Your task to perform on an android device: open app "Flipkart Online Shopping App" (install if not already installed) and go to login screen Image 0: 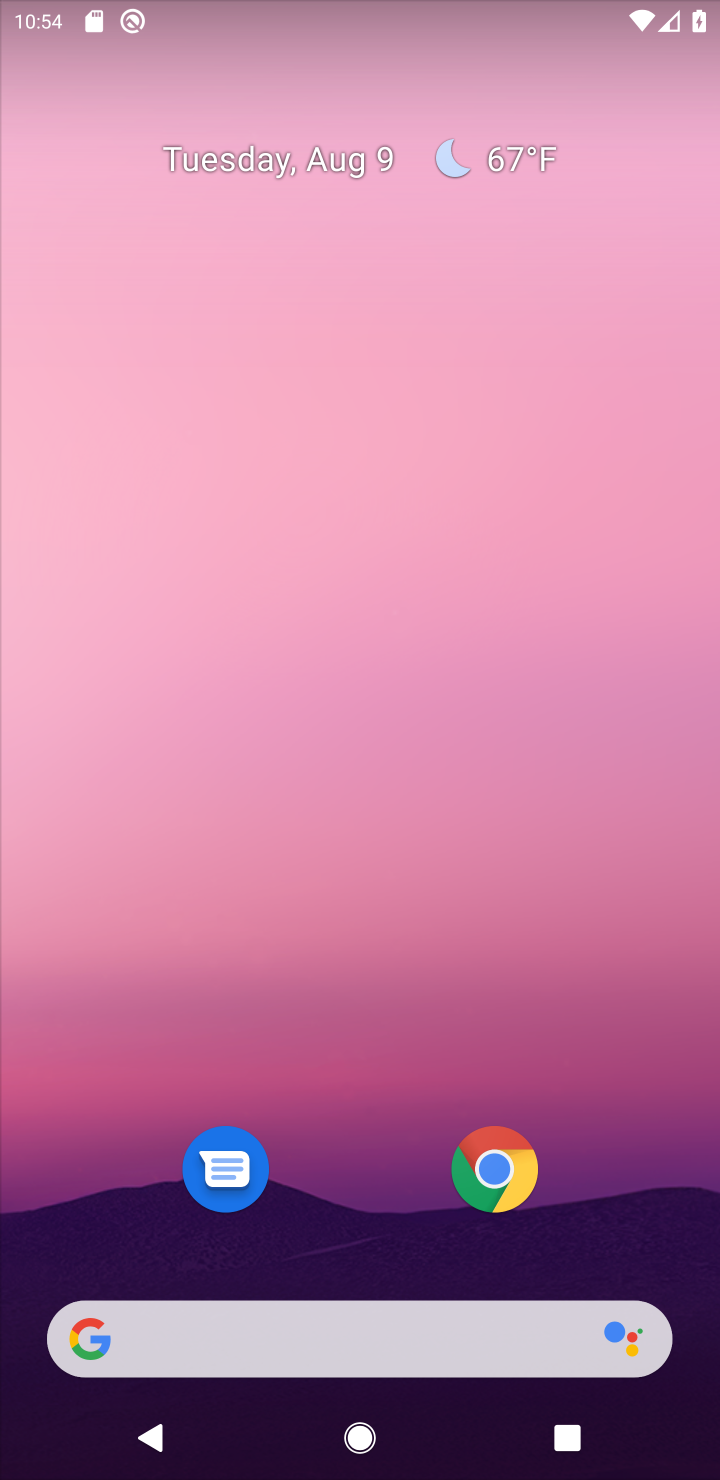
Step 0: drag from (640, 1236) to (668, 108)
Your task to perform on an android device: open app "Flipkart Online Shopping App" (install if not already installed) and go to login screen Image 1: 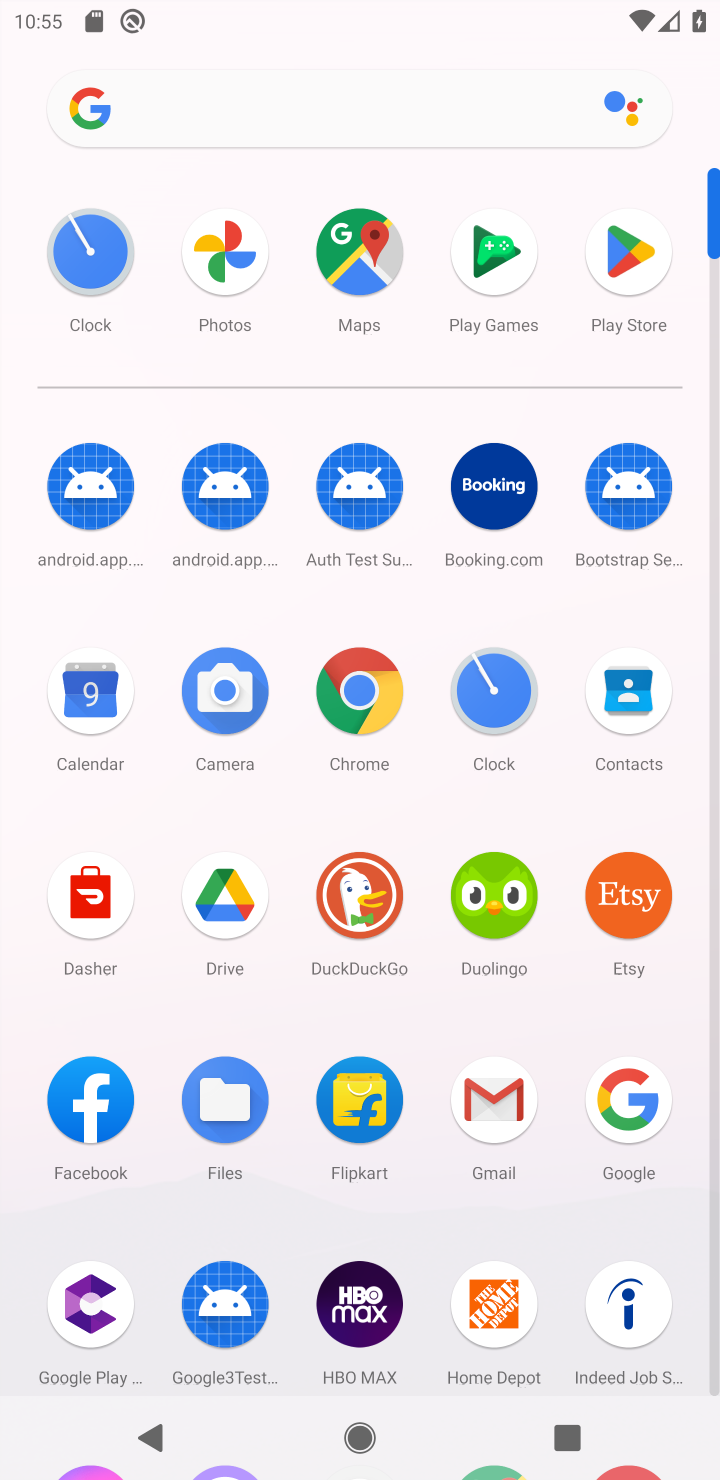
Step 1: click (621, 237)
Your task to perform on an android device: open app "Flipkart Online Shopping App" (install if not already installed) and go to login screen Image 2: 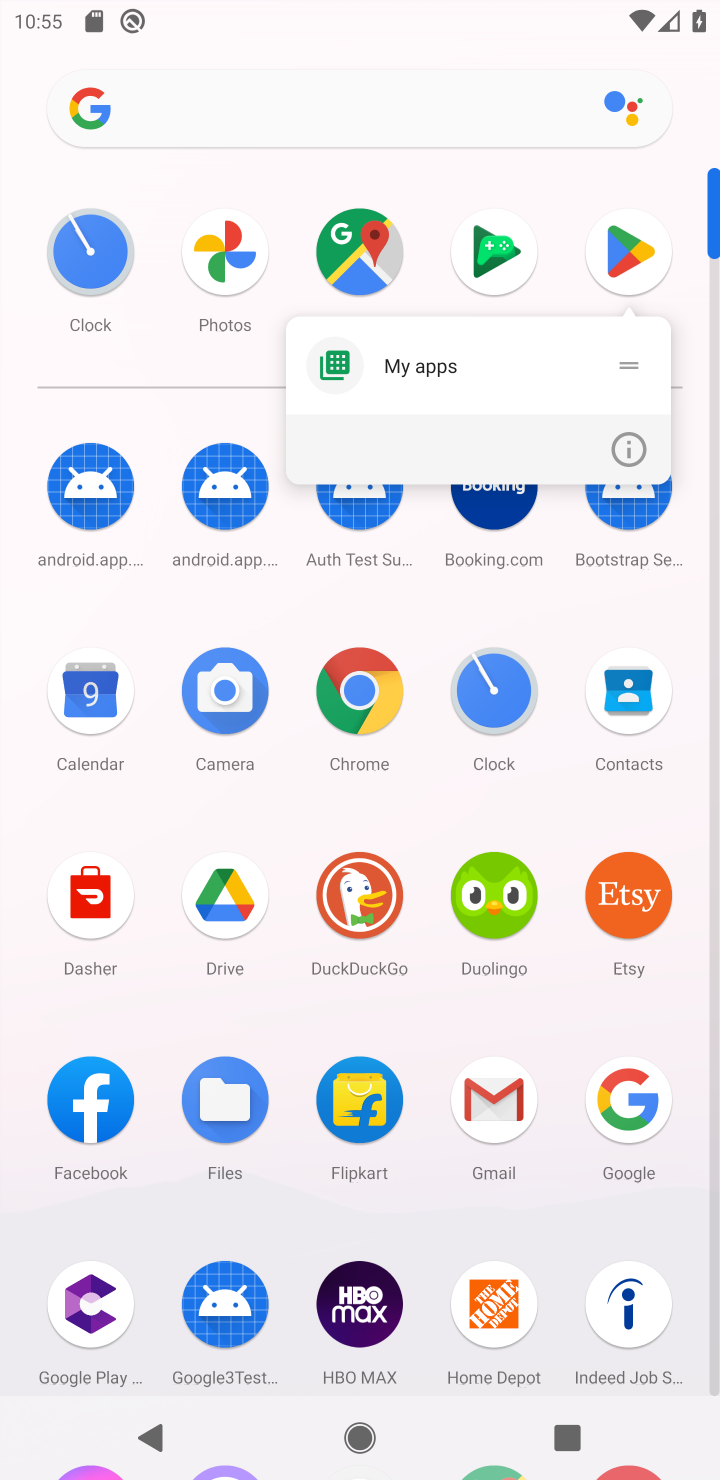
Step 2: click (642, 251)
Your task to perform on an android device: open app "Flipkart Online Shopping App" (install if not already installed) and go to login screen Image 3: 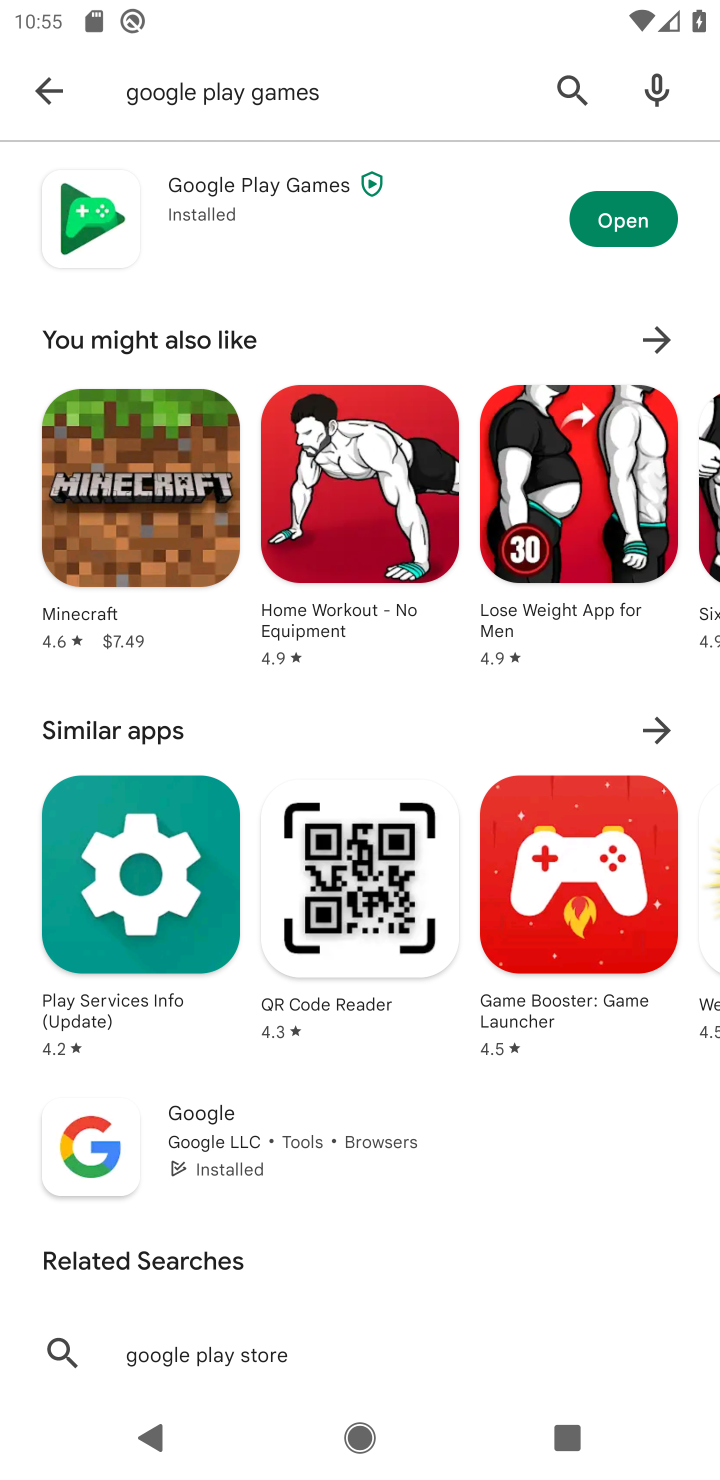
Step 3: click (571, 82)
Your task to perform on an android device: open app "Flipkart Online Shopping App" (install if not already installed) and go to login screen Image 4: 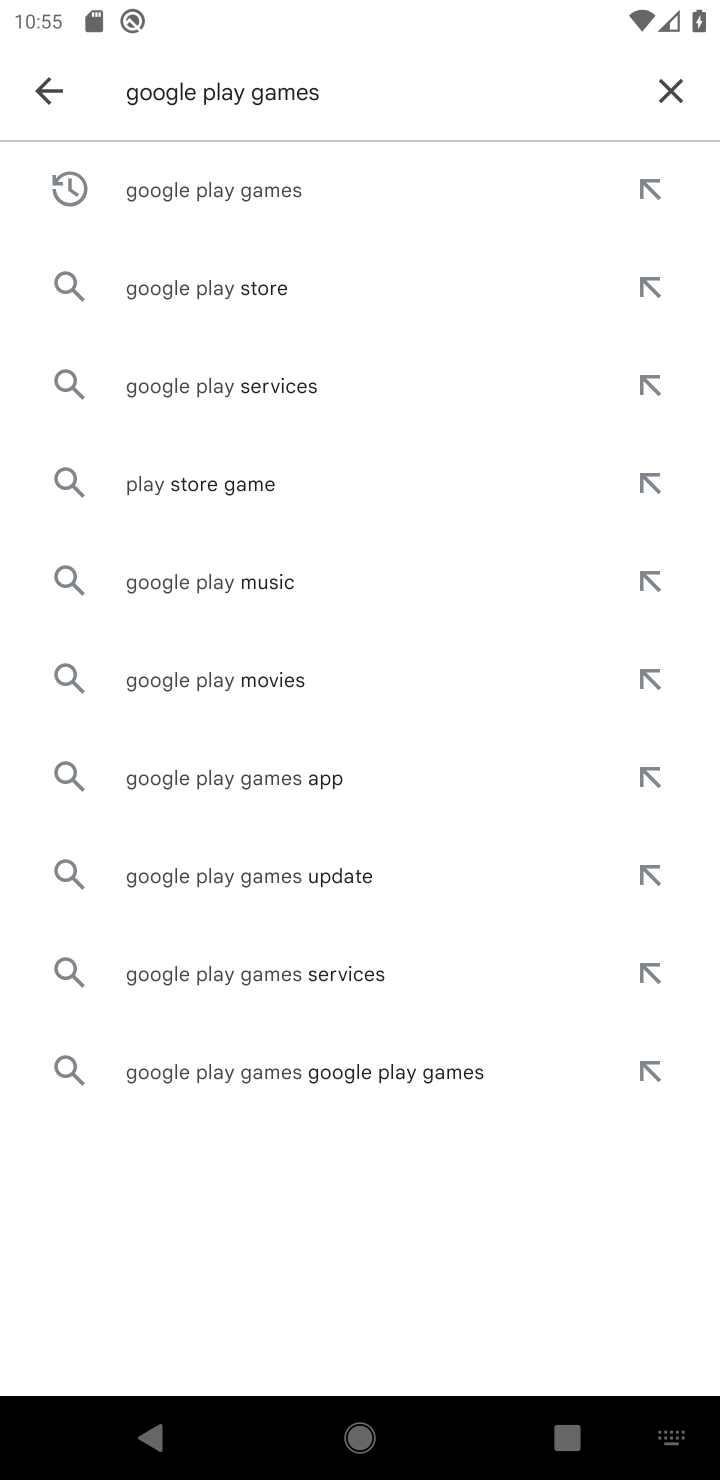
Step 4: click (677, 86)
Your task to perform on an android device: open app "Flipkart Online Shopping App" (install if not already installed) and go to login screen Image 5: 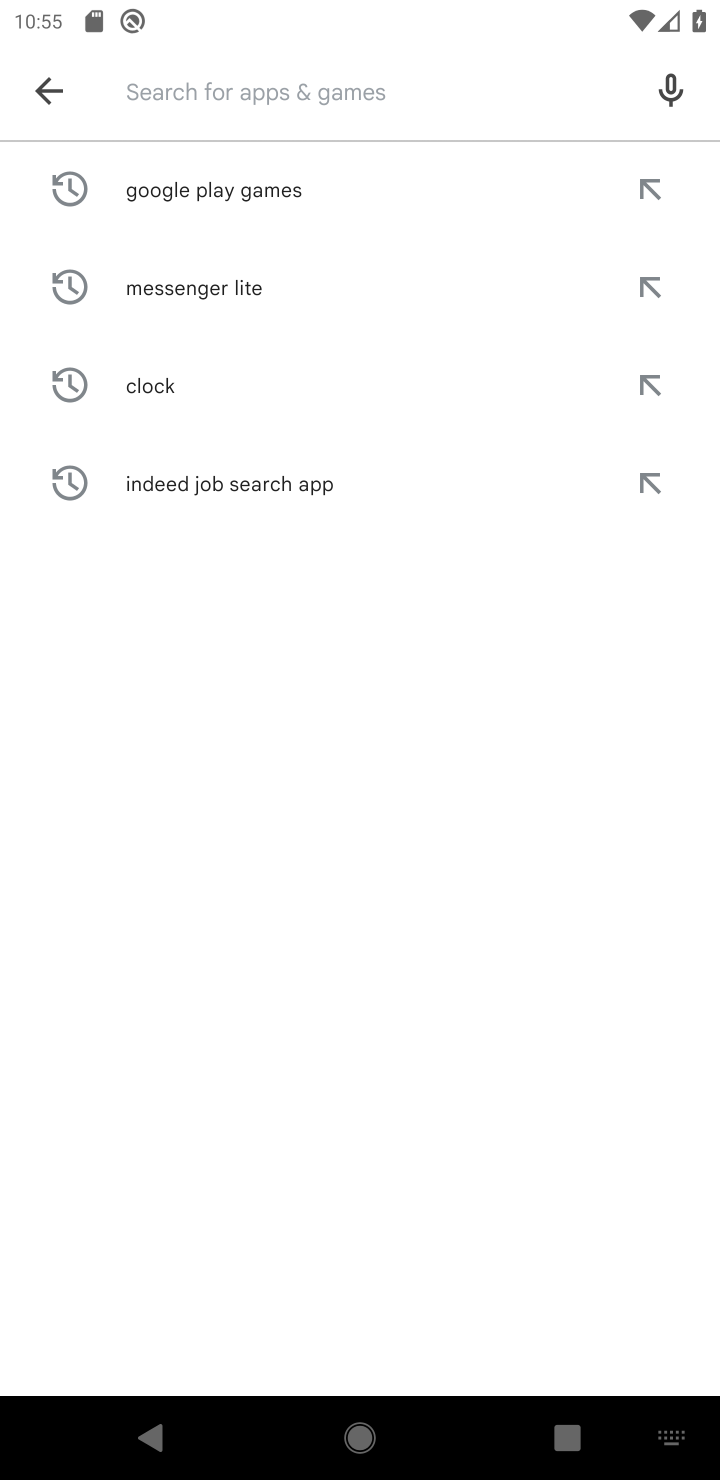
Step 5: type "Flipkart Online Shopping App"
Your task to perform on an android device: open app "Flipkart Online Shopping App" (install if not already installed) and go to login screen Image 6: 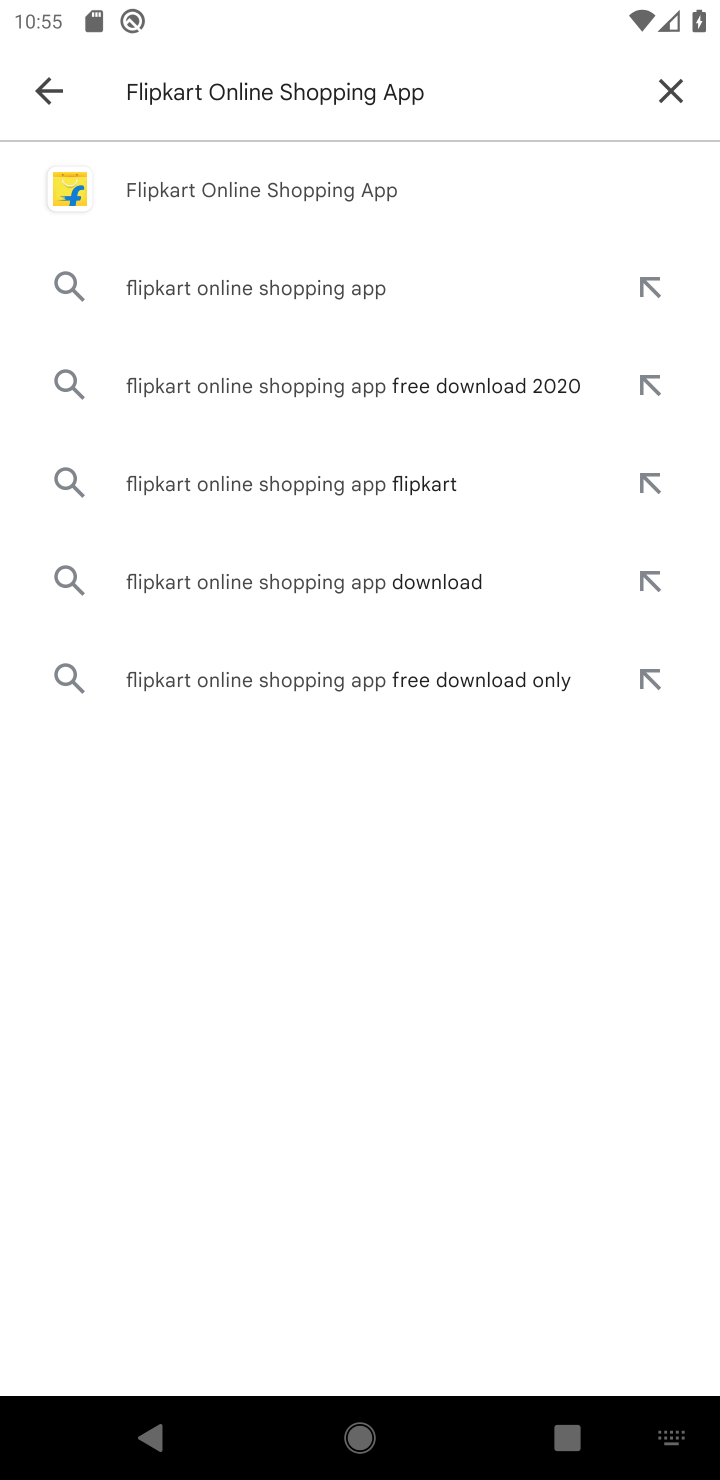
Step 6: click (390, 198)
Your task to perform on an android device: open app "Flipkart Online Shopping App" (install if not already installed) and go to login screen Image 7: 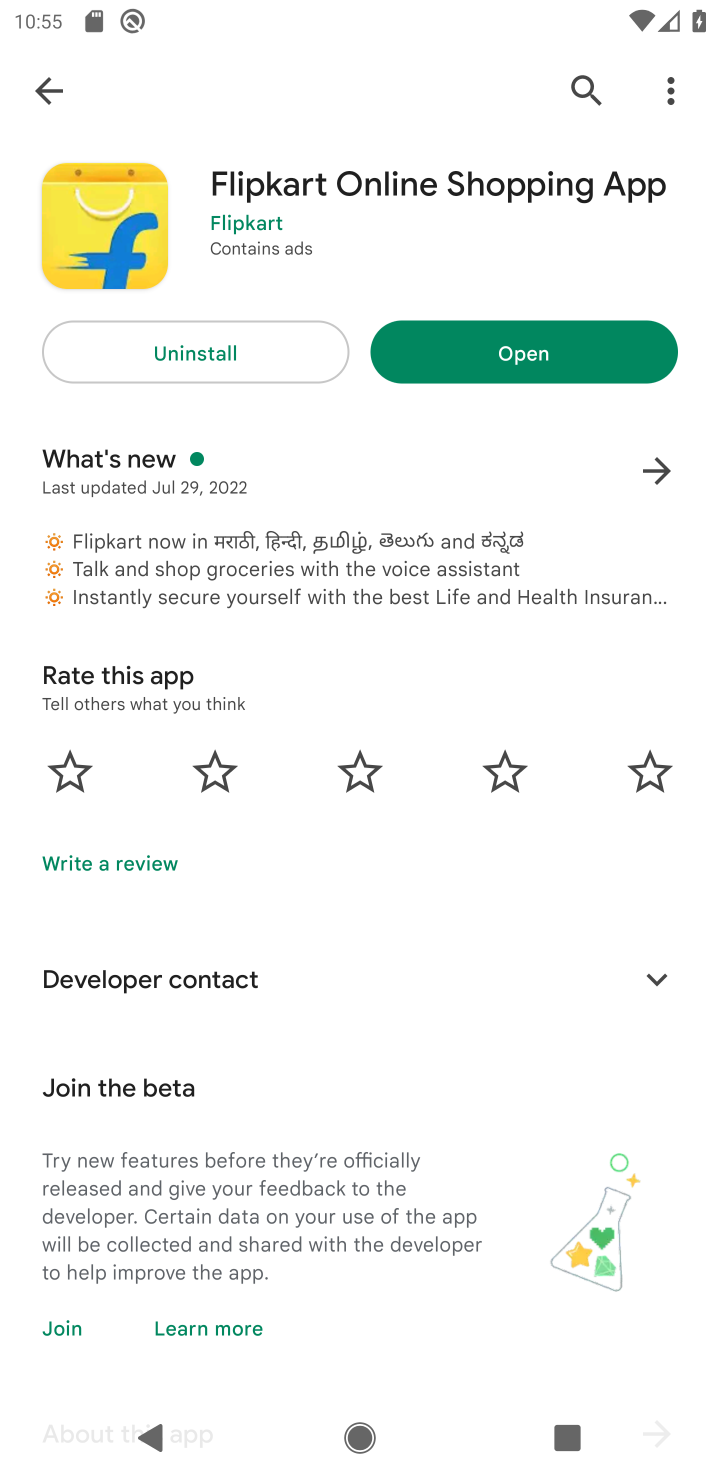
Step 7: click (519, 363)
Your task to perform on an android device: open app "Flipkart Online Shopping App" (install if not already installed) and go to login screen Image 8: 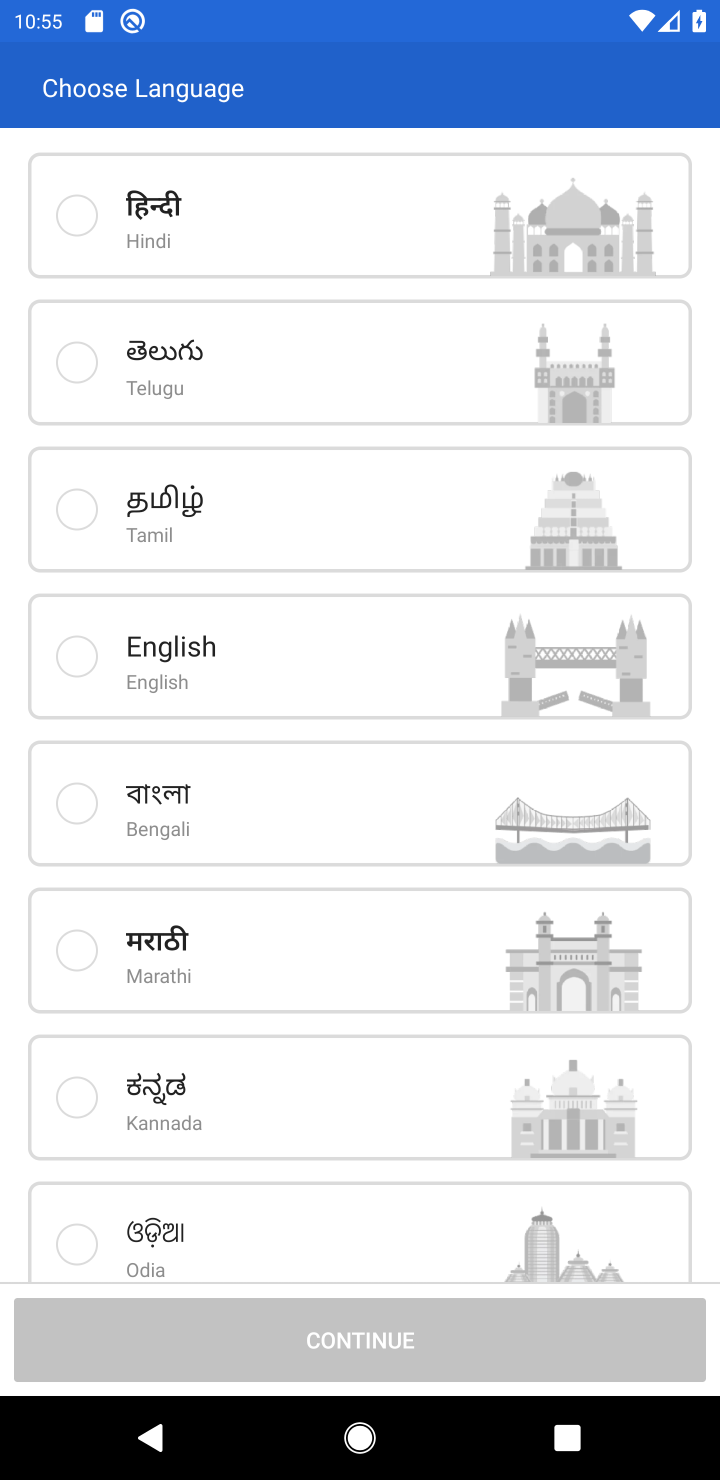
Step 8: click (197, 212)
Your task to perform on an android device: open app "Flipkart Online Shopping App" (install if not already installed) and go to login screen Image 9: 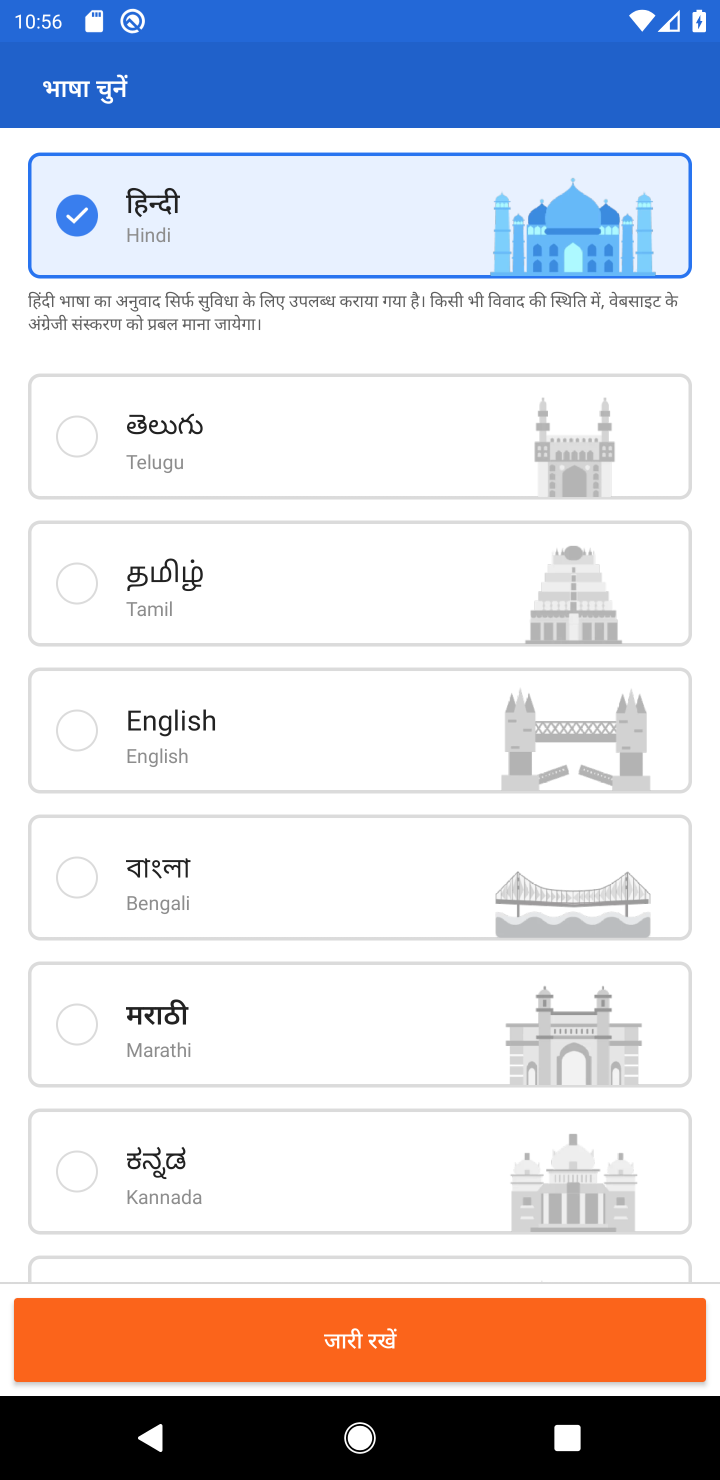
Step 9: drag from (392, 315) to (387, 910)
Your task to perform on an android device: open app "Flipkart Online Shopping App" (install if not already installed) and go to login screen Image 10: 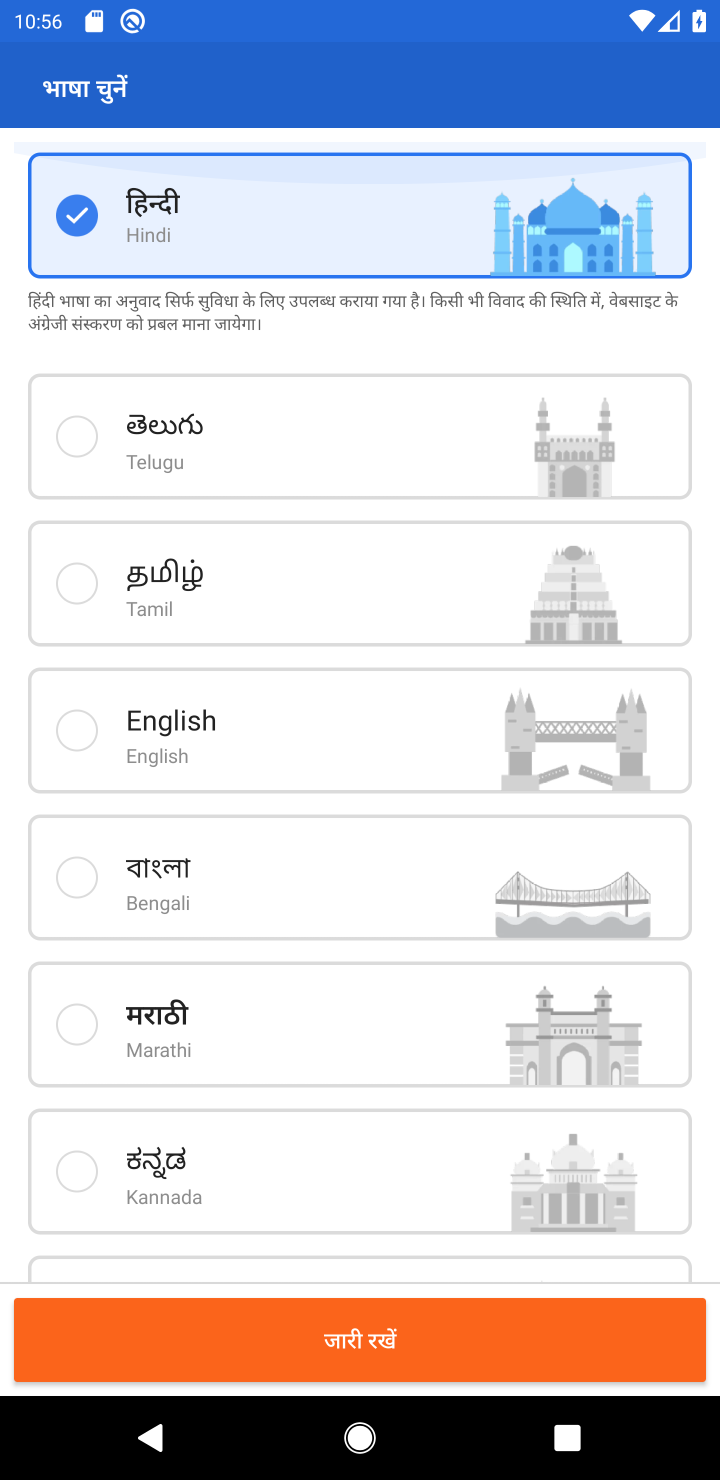
Step 10: click (305, 740)
Your task to perform on an android device: open app "Flipkart Online Shopping App" (install if not already installed) and go to login screen Image 11: 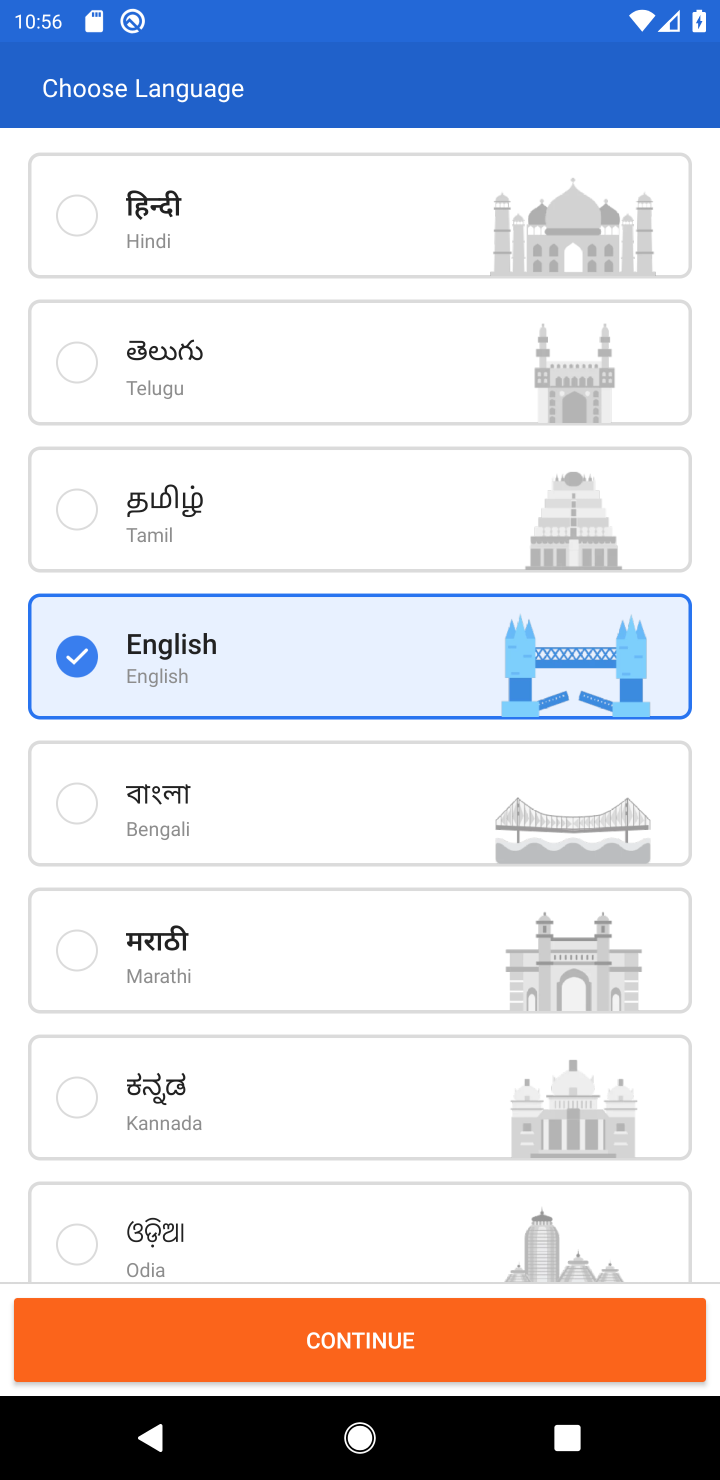
Step 11: click (397, 1339)
Your task to perform on an android device: open app "Flipkart Online Shopping App" (install if not already installed) and go to login screen Image 12: 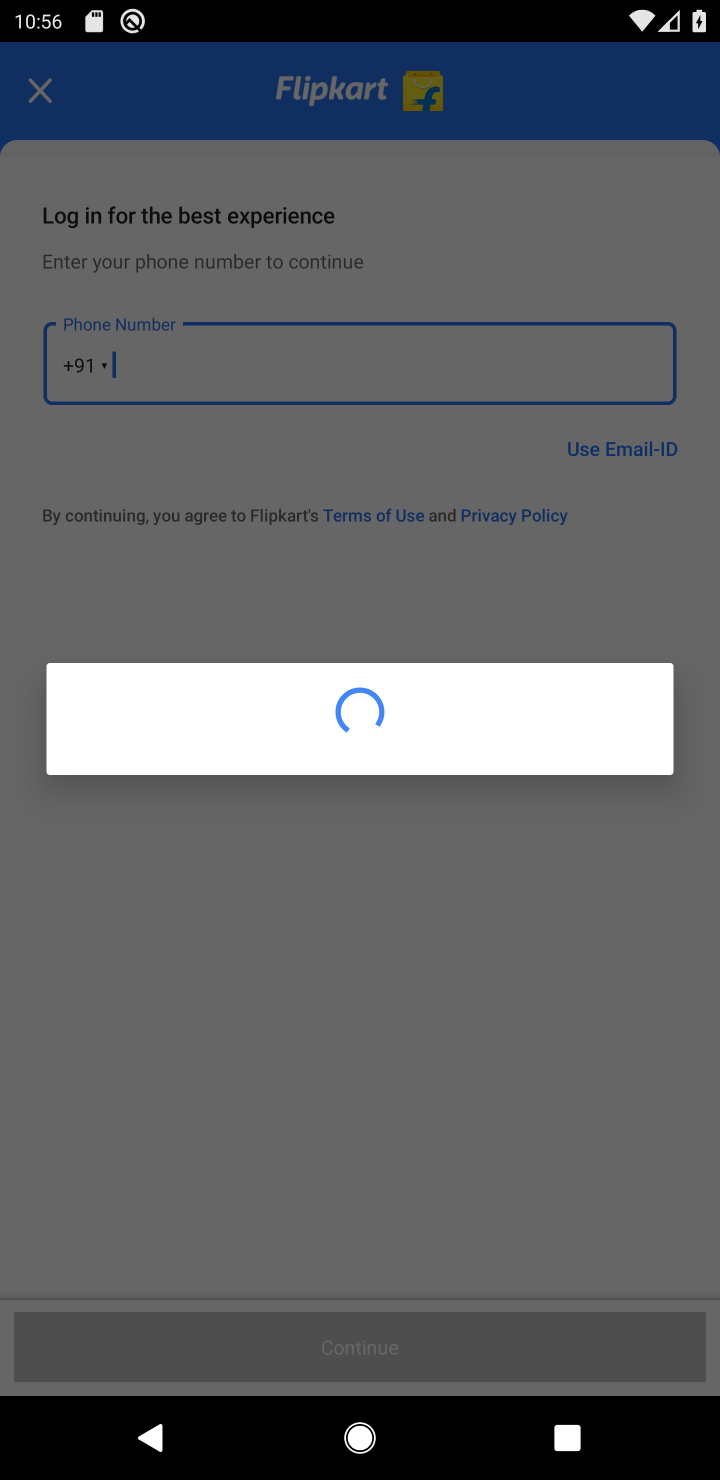
Step 12: task complete